Your task to perform on an android device: find photos in the google photos app Image 0: 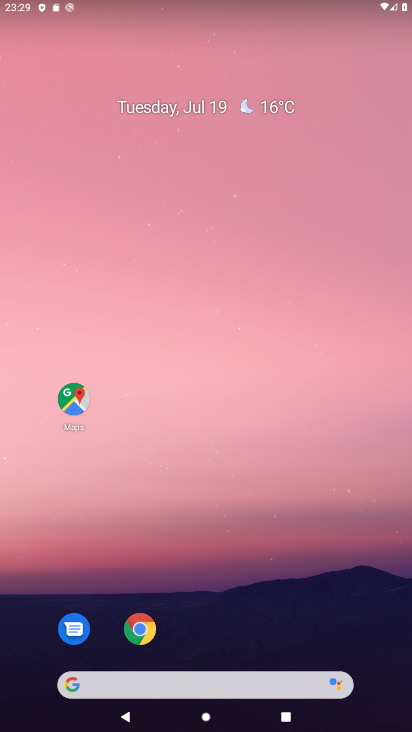
Step 0: drag from (378, 671) to (325, 226)
Your task to perform on an android device: find photos in the google photos app Image 1: 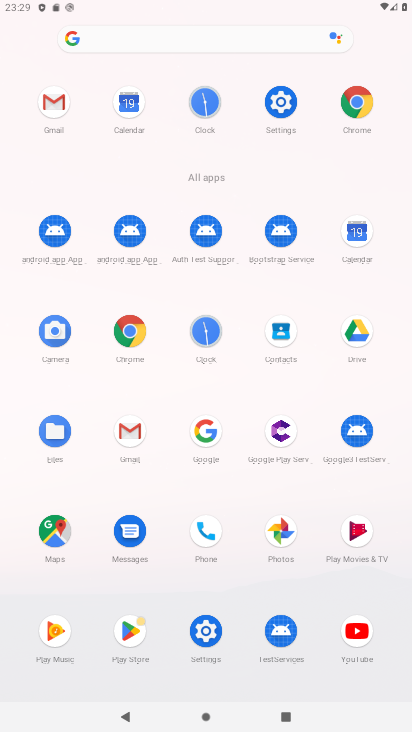
Step 1: click (284, 536)
Your task to perform on an android device: find photos in the google photos app Image 2: 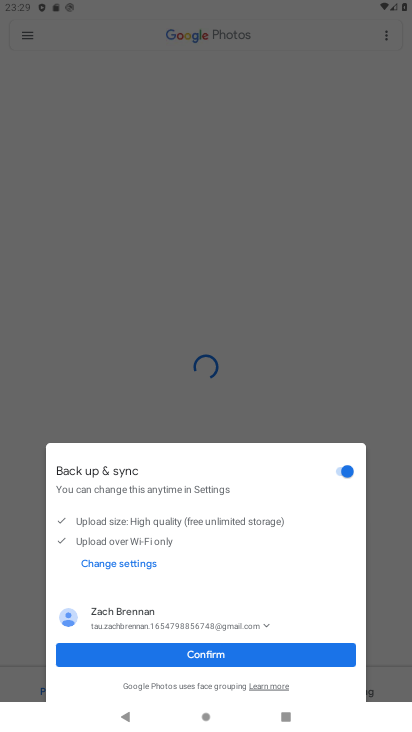
Step 2: click (239, 652)
Your task to perform on an android device: find photos in the google photos app Image 3: 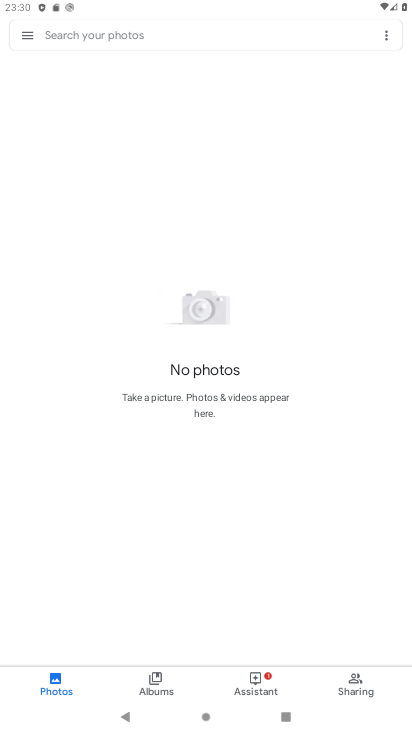
Step 3: click (253, 687)
Your task to perform on an android device: find photos in the google photos app Image 4: 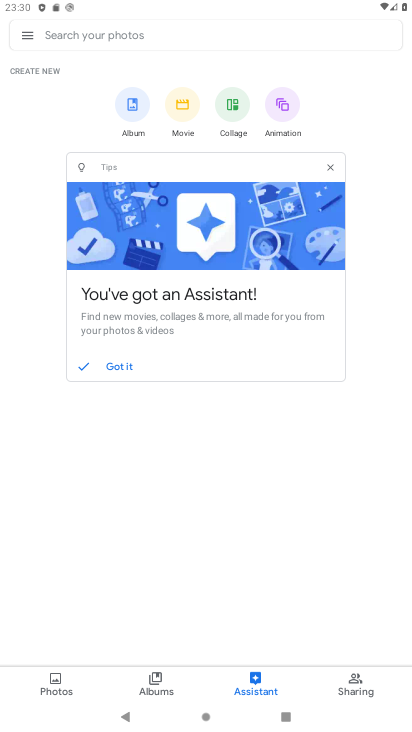
Step 4: click (54, 684)
Your task to perform on an android device: find photos in the google photos app Image 5: 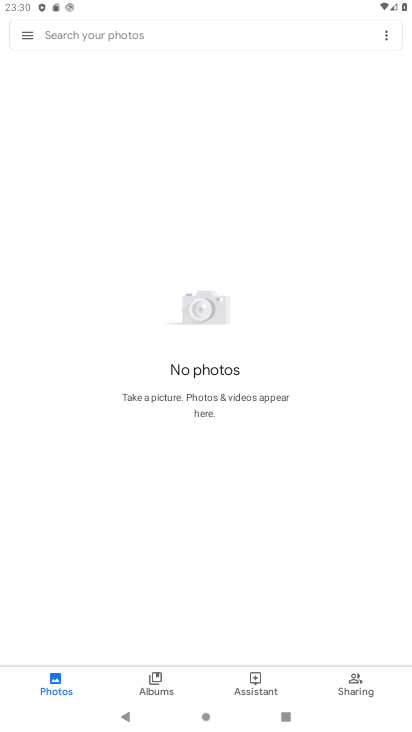
Step 5: task complete